Your task to perform on an android device: change the clock display to show seconds Image 0: 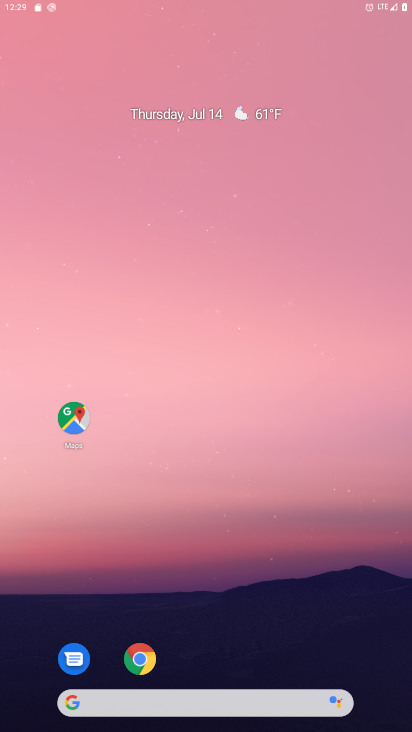
Step 0: press home button
Your task to perform on an android device: change the clock display to show seconds Image 1: 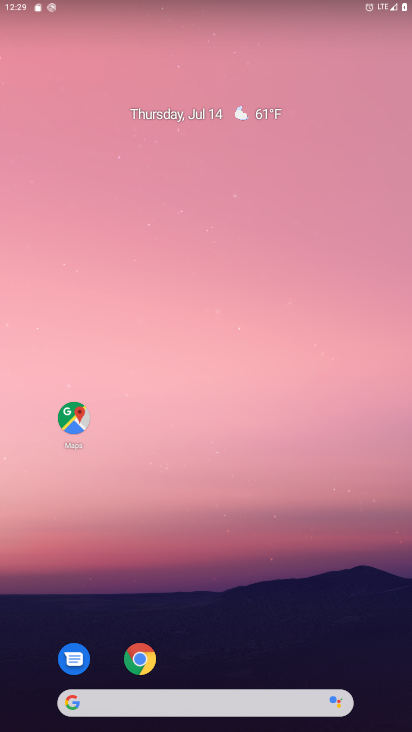
Step 1: drag from (218, 670) to (205, 98)
Your task to perform on an android device: change the clock display to show seconds Image 2: 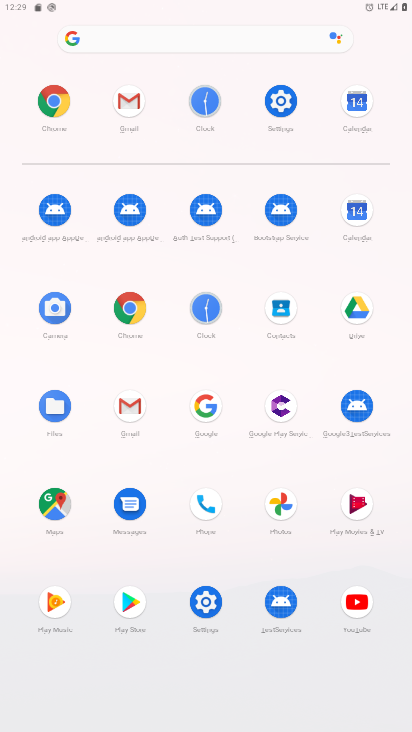
Step 2: click (206, 303)
Your task to perform on an android device: change the clock display to show seconds Image 3: 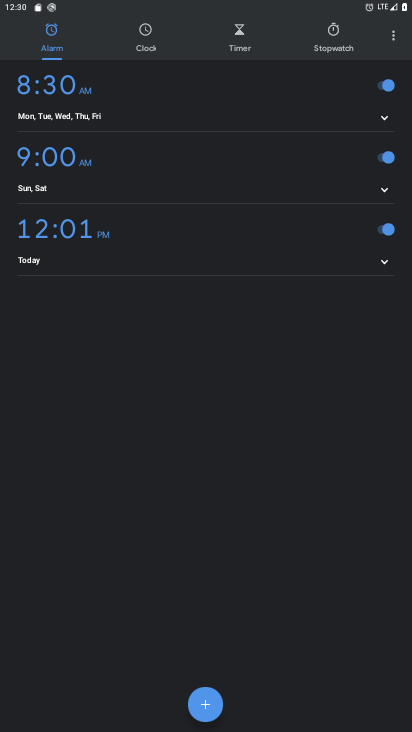
Step 3: click (392, 35)
Your task to perform on an android device: change the clock display to show seconds Image 4: 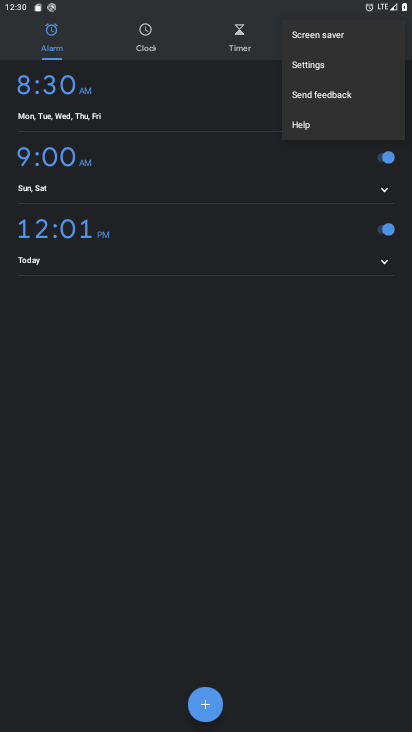
Step 4: click (337, 63)
Your task to perform on an android device: change the clock display to show seconds Image 5: 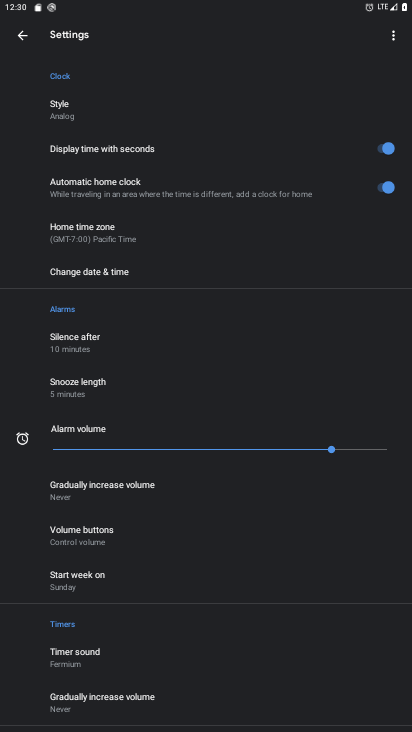
Step 5: click (378, 145)
Your task to perform on an android device: change the clock display to show seconds Image 6: 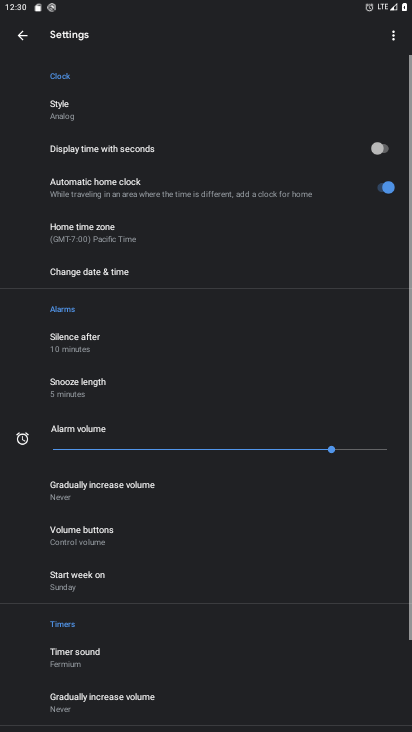
Step 6: task complete